Your task to perform on an android device: What is the news today? Image 0: 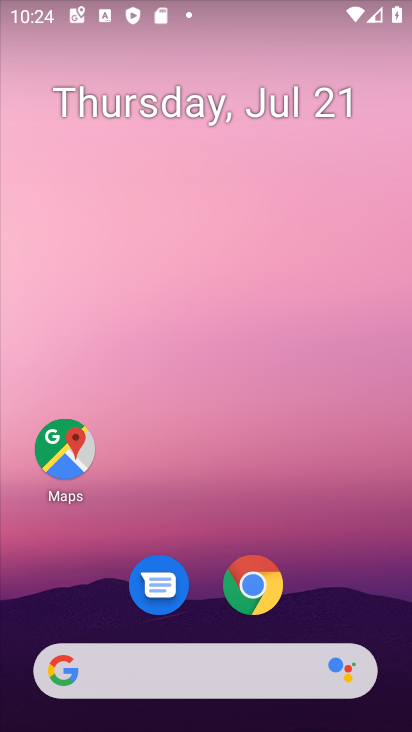
Step 0: click (248, 679)
Your task to perform on an android device: What is the news today? Image 1: 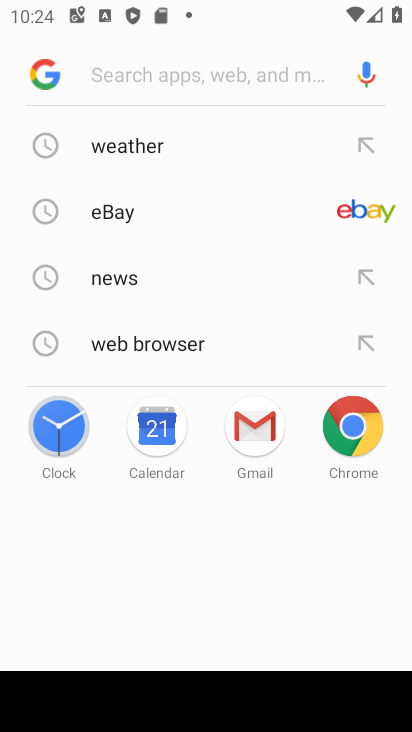
Step 1: click (120, 280)
Your task to perform on an android device: What is the news today? Image 2: 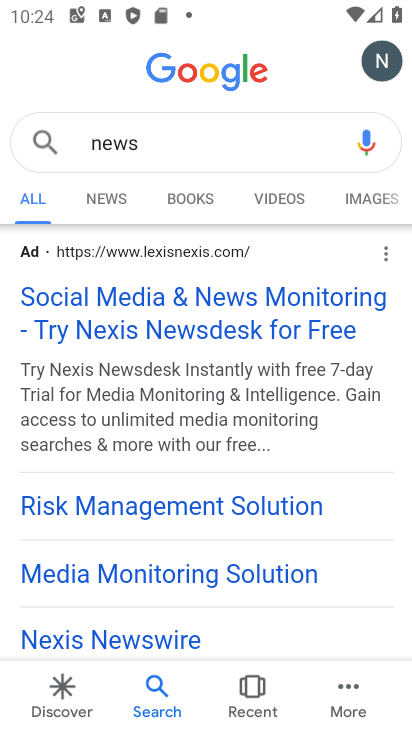
Step 2: click (114, 191)
Your task to perform on an android device: What is the news today? Image 3: 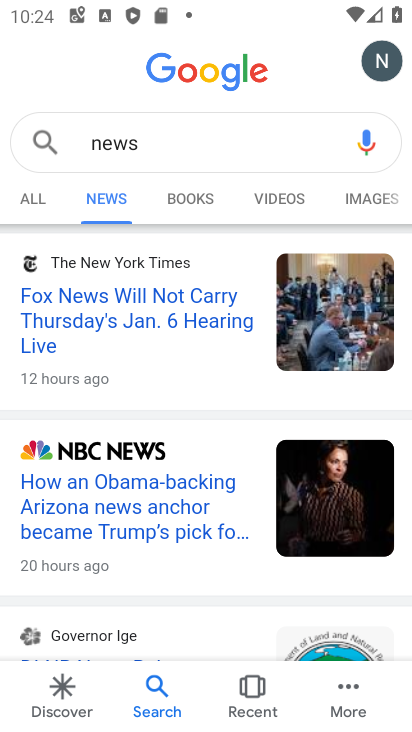
Step 3: drag from (262, 450) to (289, 212)
Your task to perform on an android device: What is the news today? Image 4: 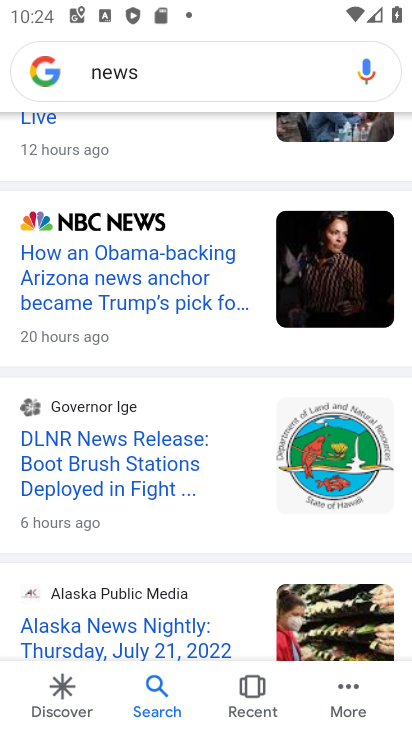
Step 4: drag from (233, 497) to (251, 200)
Your task to perform on an android device: What is the news today? Image 5: 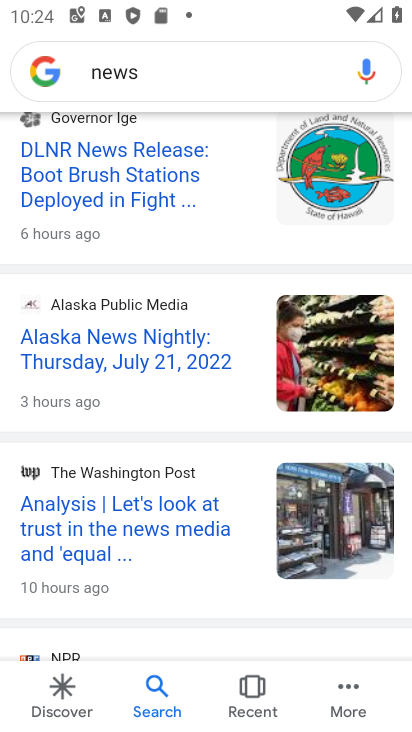
Step 5: drag from (234, 574) to (227, 208)
Your task to perform on an android device: What is the news today? Image 6: 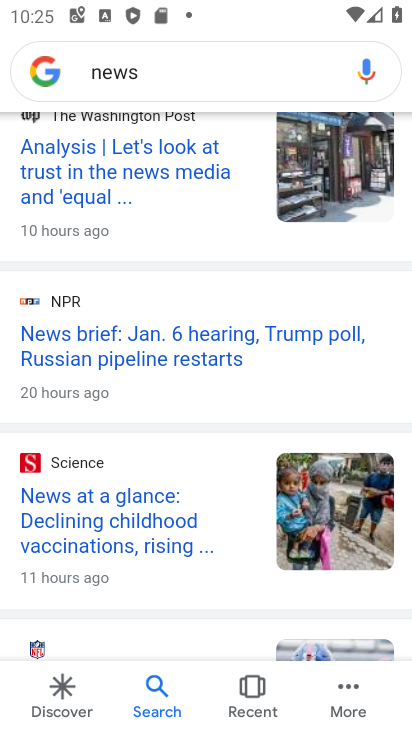
Step 6: drag from (227, 201) to (197, 576)
Your task to perform on an android device: What is the news today? Image 7: 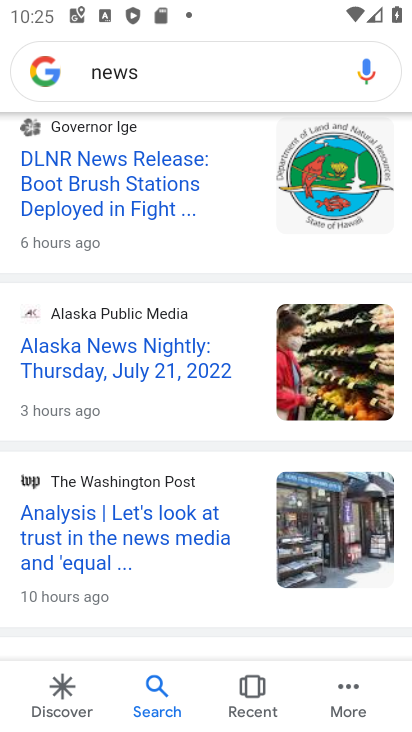
Step 7: drag from (248, 176) to (216, 624)
Your task to perform on an android device: What is the news today? Image 8: 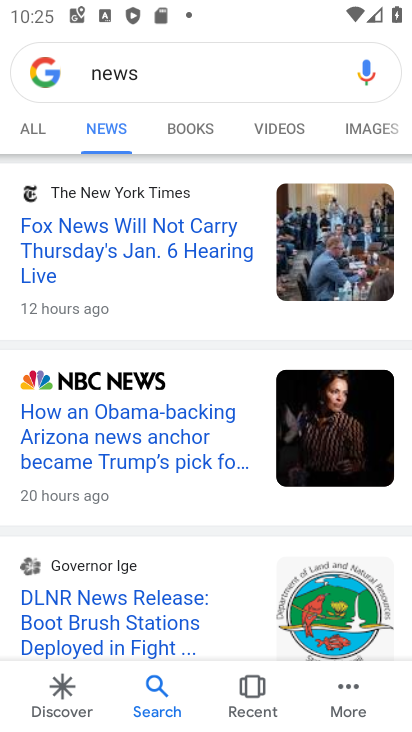
Step 8: drag from (246, 185) to (242, 539)
Your task to perform on an android device: What is the news today? Image 9: 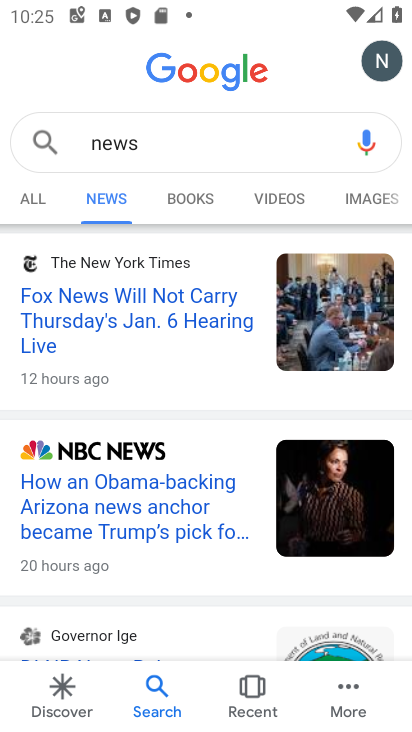
Step 9: click (156, 301)
Your task to perform on an android device: What is the news today? Image 10: 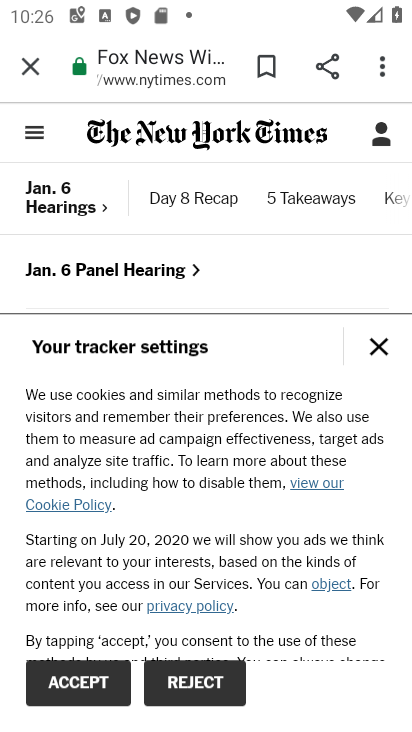
Step 10: task complete